Your task to perform on an android device: Search for Mexican restaurants on Maps Image 0: 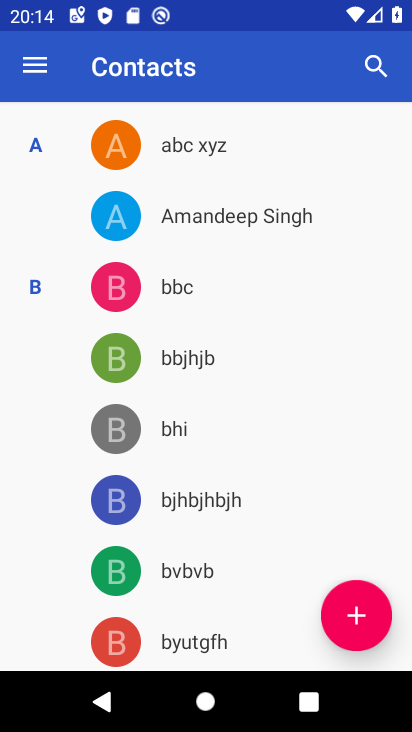
Step 0: press home button
Your task to perform on an android device: Search for Mexican restaurants on Maps Image 1: 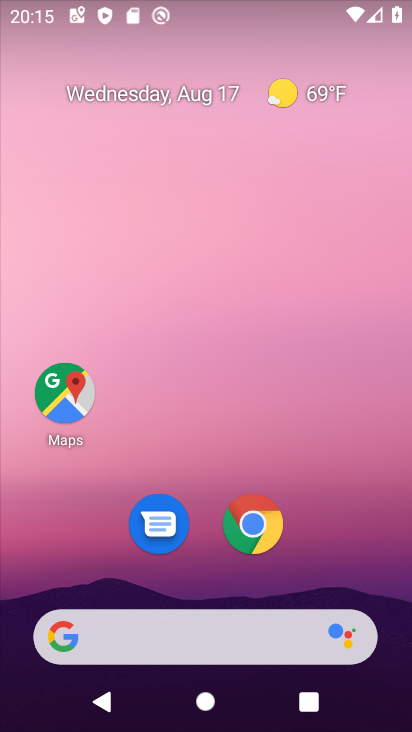
Step 1: click (62, 391)
Your task to perform on an android device: Search for Mexican restaurants on Maps Image 2: 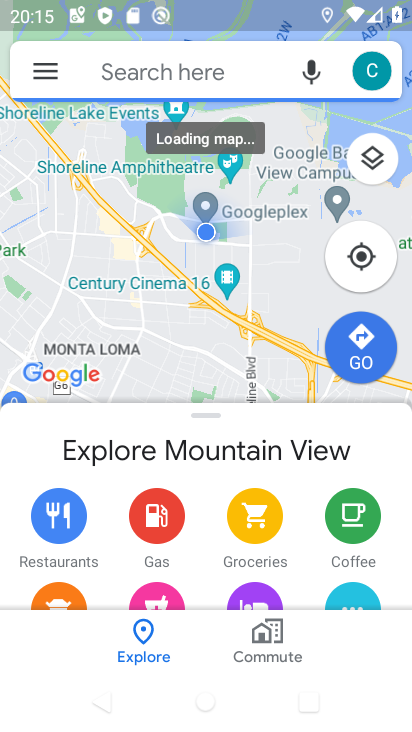
Step 2: click (199, 79)
Your task to perform on an android device: Search for Mexican restaurants on Maps Image 3: 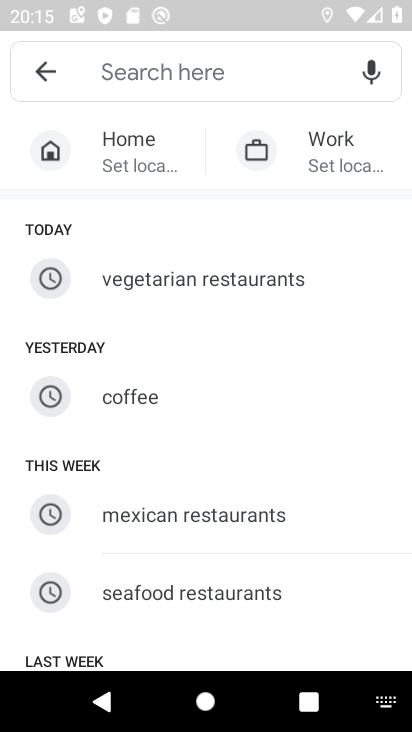
Step 3: click (208, 519)
Your task to perform on an android device: Search for Mexican restaurants on Maps Image 4: 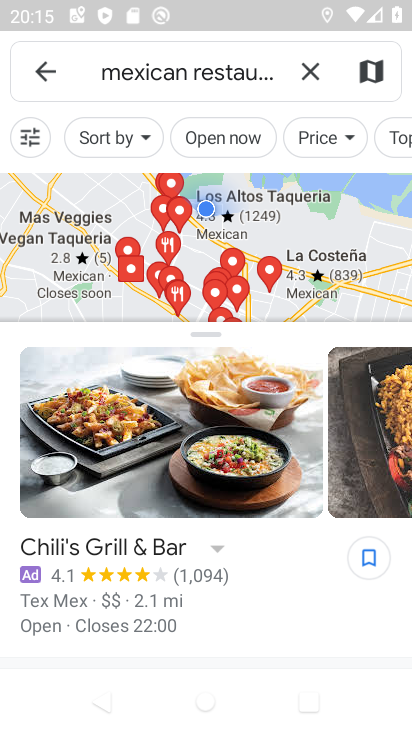
Step 4: task complete